Your task to perform on an android device: Open Maps and search for coffee Image 0: 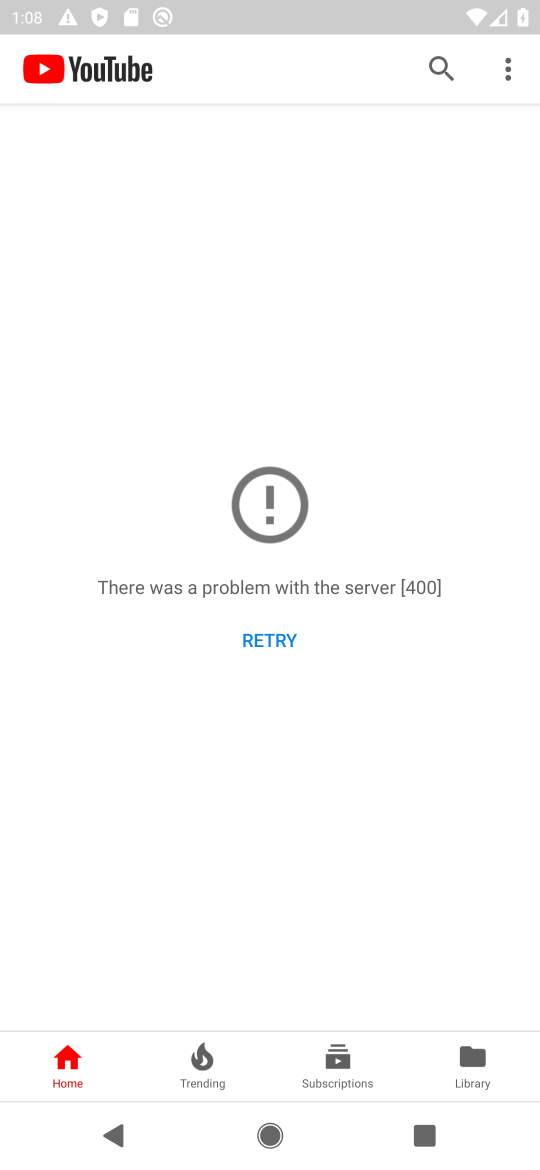
Step 0: press home button
Your task to perform on an android device: Open Maps and search for coffee Image 1: 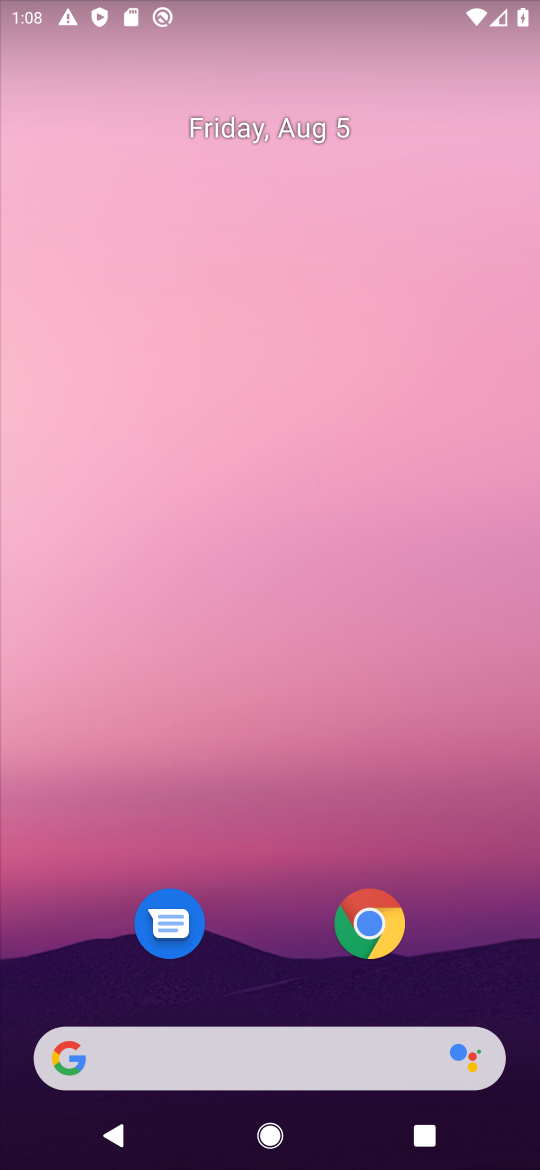
Step 1: drag from (307, 1041) to (306, 150)
Your task to perform on an android device: Open Maps and search for coffee Image 2: 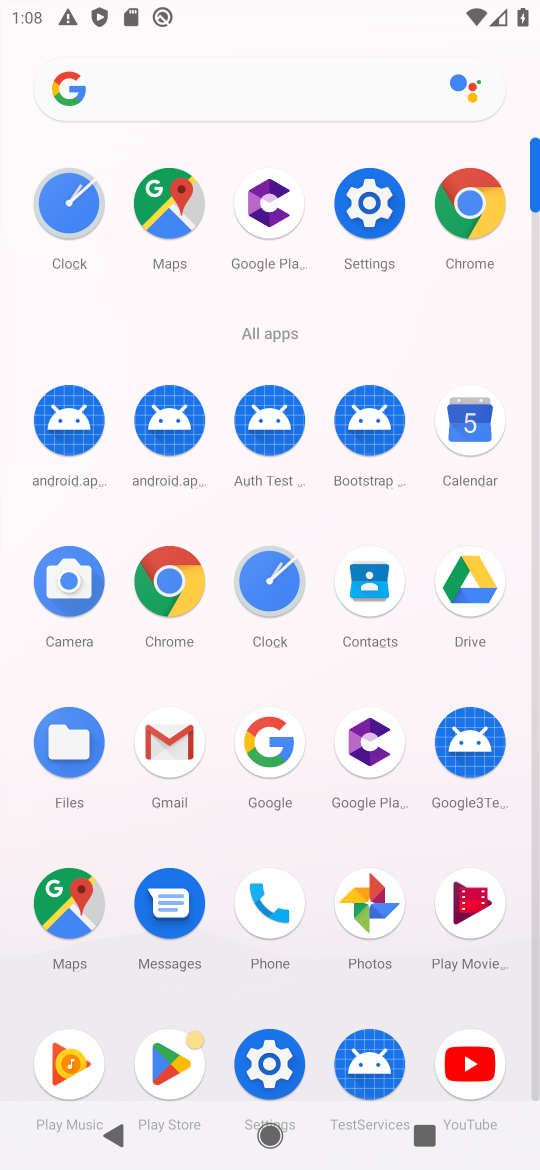
Step 2: click (28, 918)
Your task to perform on an android device: Open Maps and search for coffee Image 3: 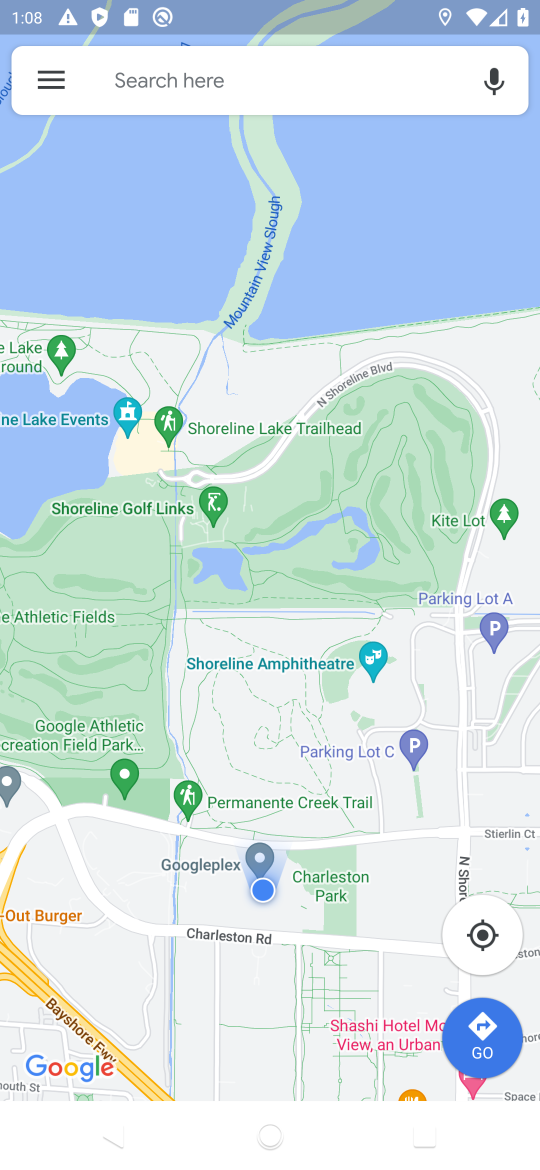
Step 3: click (222, 71)
Your task to perform on an android device: Open Maps and search for coffee Image 4: 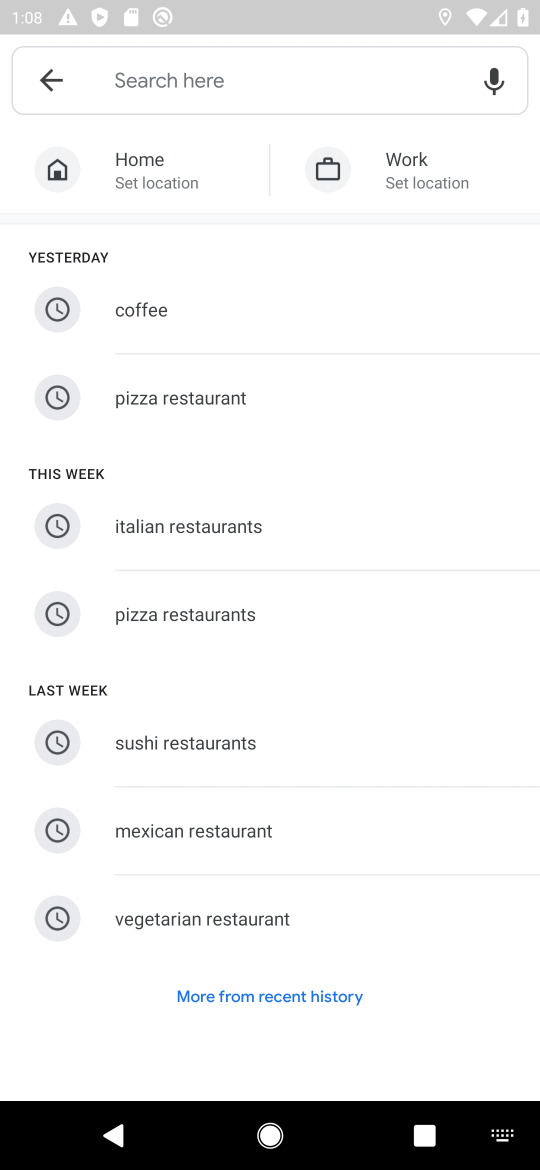
Step 4: click (174, 310)
Your task to perform on an android device: Open Maps and search for coffee Image 5: 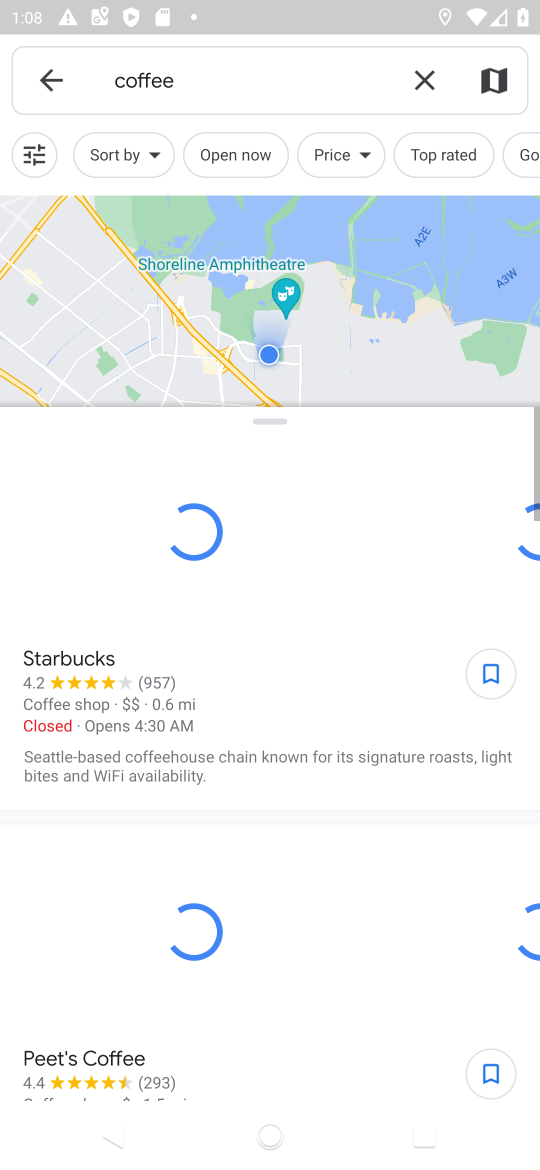
Step 5: task complete